Your task to perform on an android device: Go to internet settings Image 0: 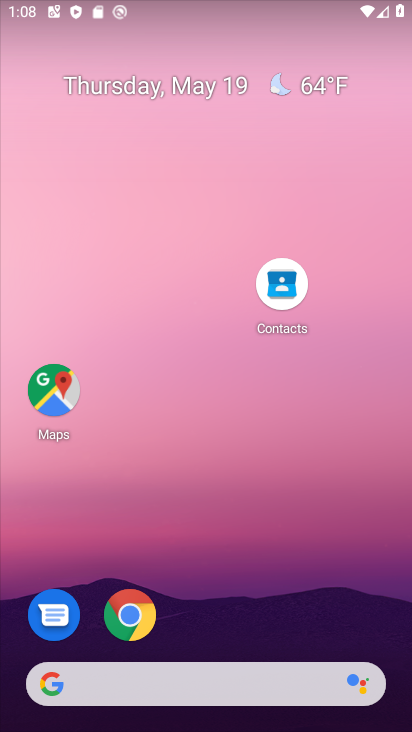
Step 0: drag from (205, 620) to (182, 252)
Your task to perform on an android device: Go to internet settings Image 1: 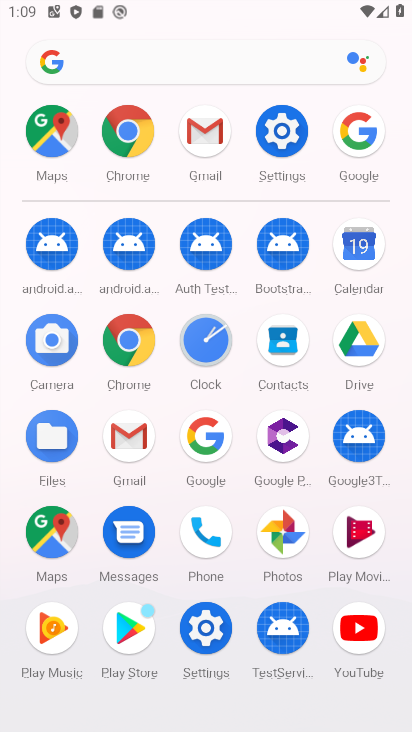
Step 1: click (285, 145)
Your task to perform on an android device: Go to internet settings Image 2: 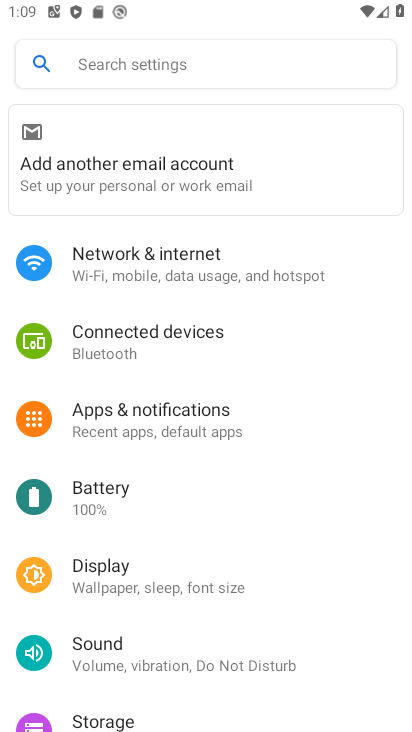
Step 2: click (176, 274)
Your task to perform on an android device: Go to internet settings Image 3: 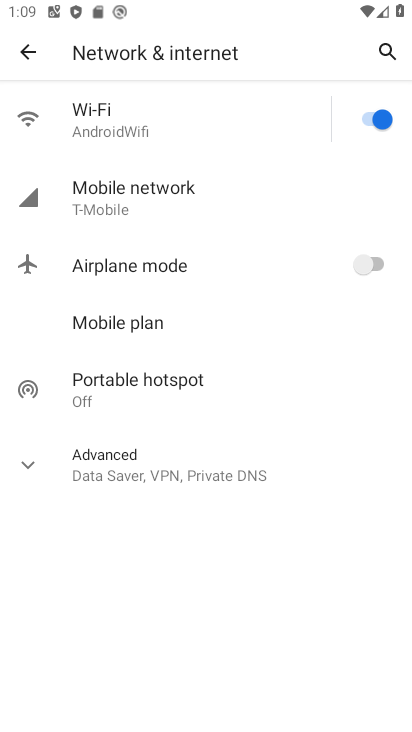
Step 3: click (248, 190)
Your task to perform on an android device: Go to internet settings Image 4: 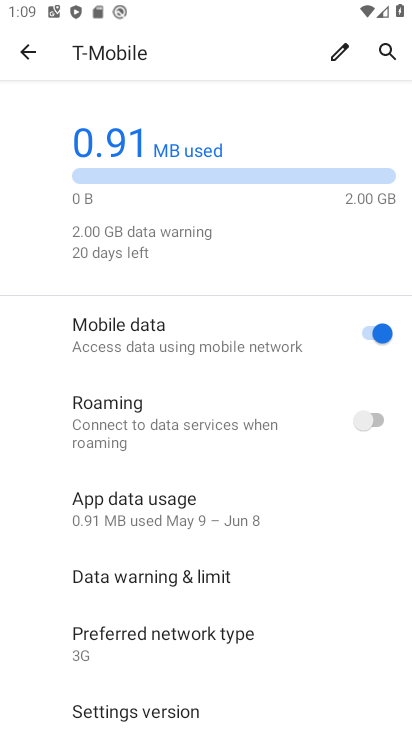
Step 4: click (195, 500)
Your task to perform on an android device: Go to internet settings Image 5: 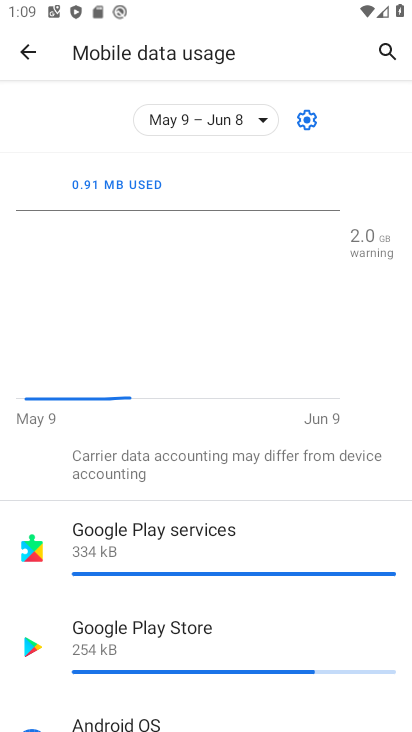
Step 5: task complete